Your task to perform on an android device: Search for Mexican restaurants on Maps Image 0: 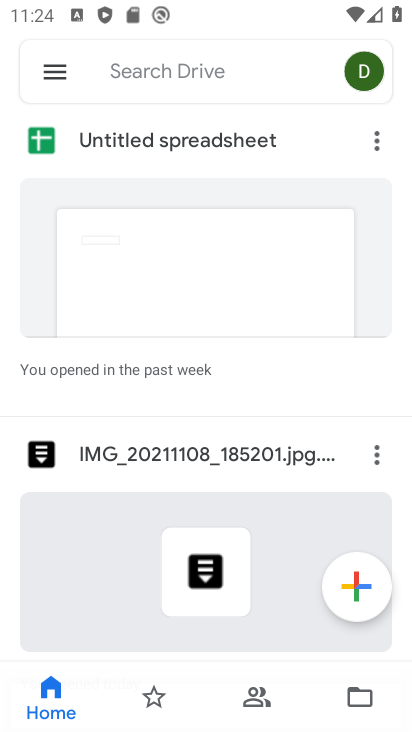
Step 0: press home button
Your task to perform on an android device: Search for Mexican restaurants on Maps Image 1: 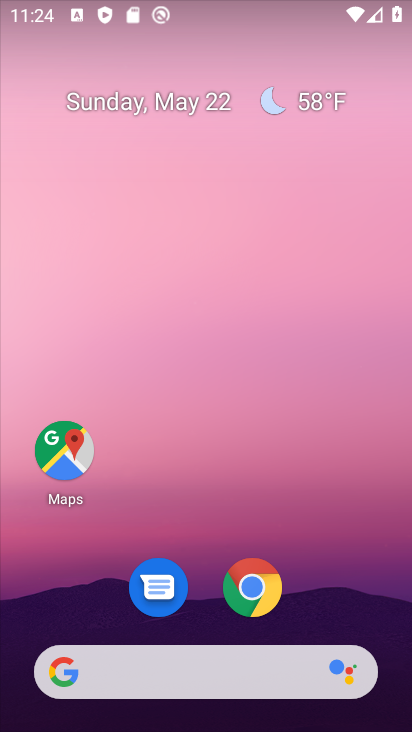
Step 1: click (65, 454)
Your task to perform on an android device: Search for Mexican restaurants on Maps Image 2: 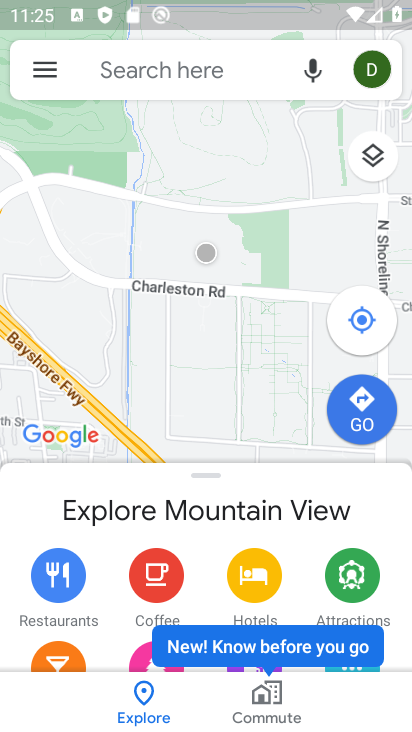
Step 2: click (195, 65)
Your task to perform on an android device: Search for Mexican restaurants on Maps Image 3: 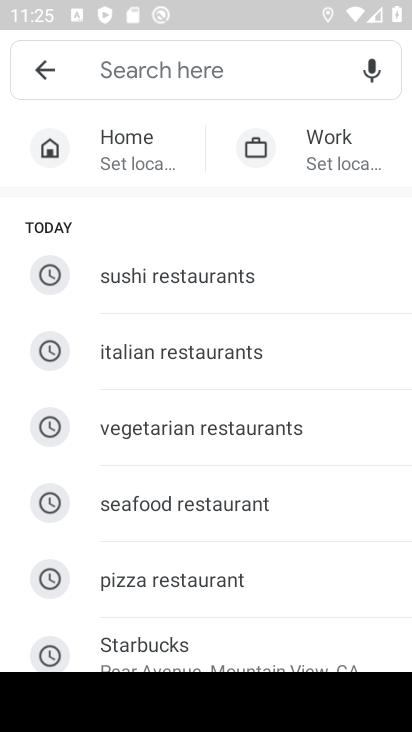
Step 3: type "Mexican restaurants"
Your task to perform on an android device: Search for Mexican restaurants on Maps Image 4: 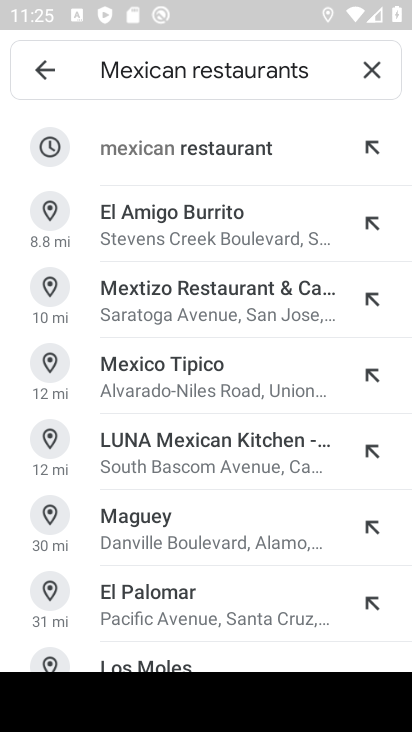
Step 4: click (246, 146)
Your task to perform on an android device: Search for Mexican restaurants on Maps Image 5: 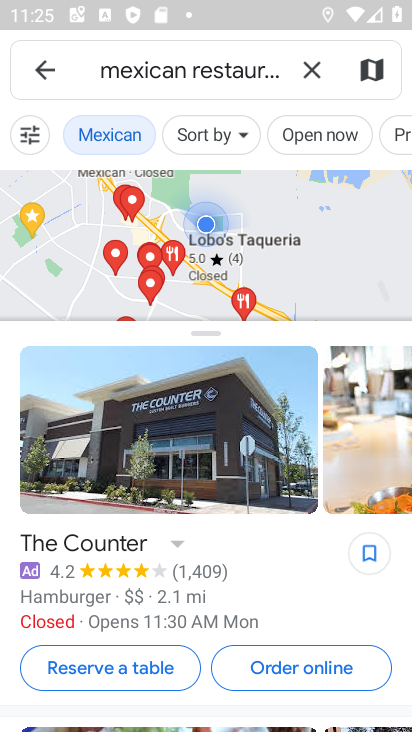
Step 5: task complete